Your task to perform on an android device: Open Google Image 0: 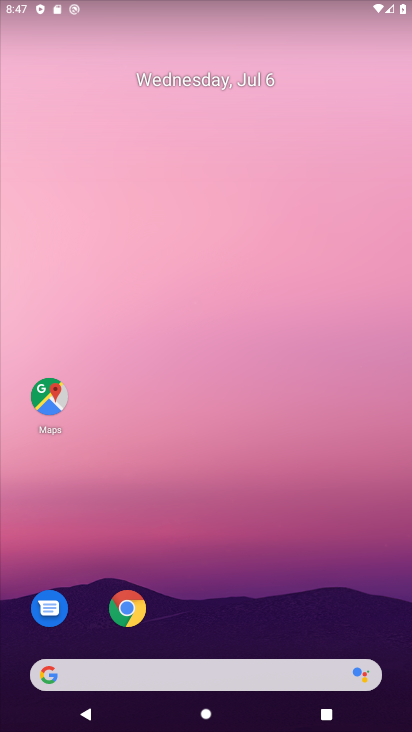
Step 0: drag from (297, 613) to (213, 106)
Your task to perform on an android device: Open Google Image 1: 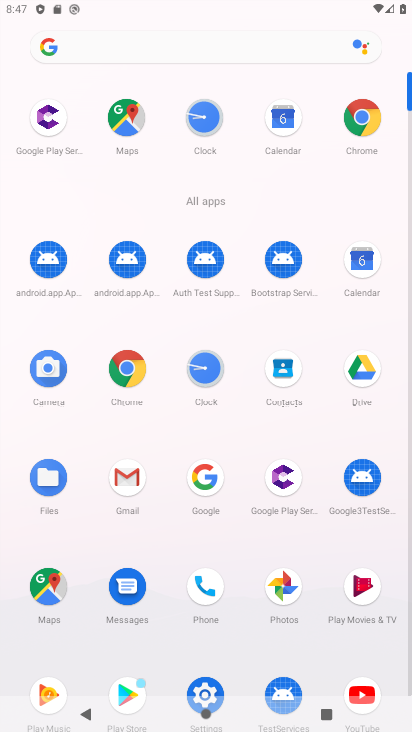
Step 1: click (364, 121)
Your task to perform on an android device: Open Google Image 2: 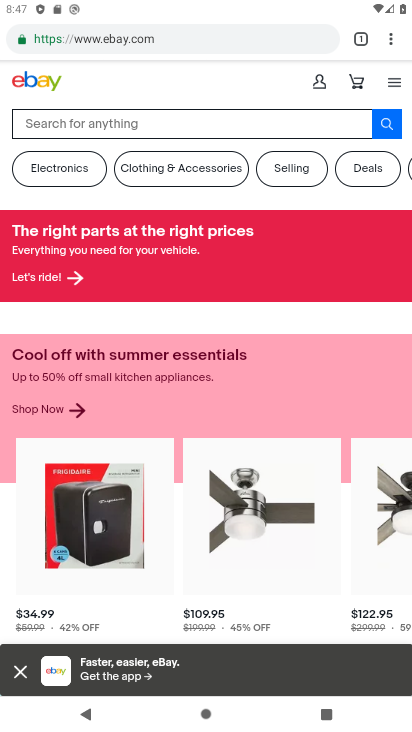
Step 2: task complete